Your task to perform on an android device: View the shopping cart on target. Search for "logitech g903" on target, select the first entry, and add it to the cart. Image 0: 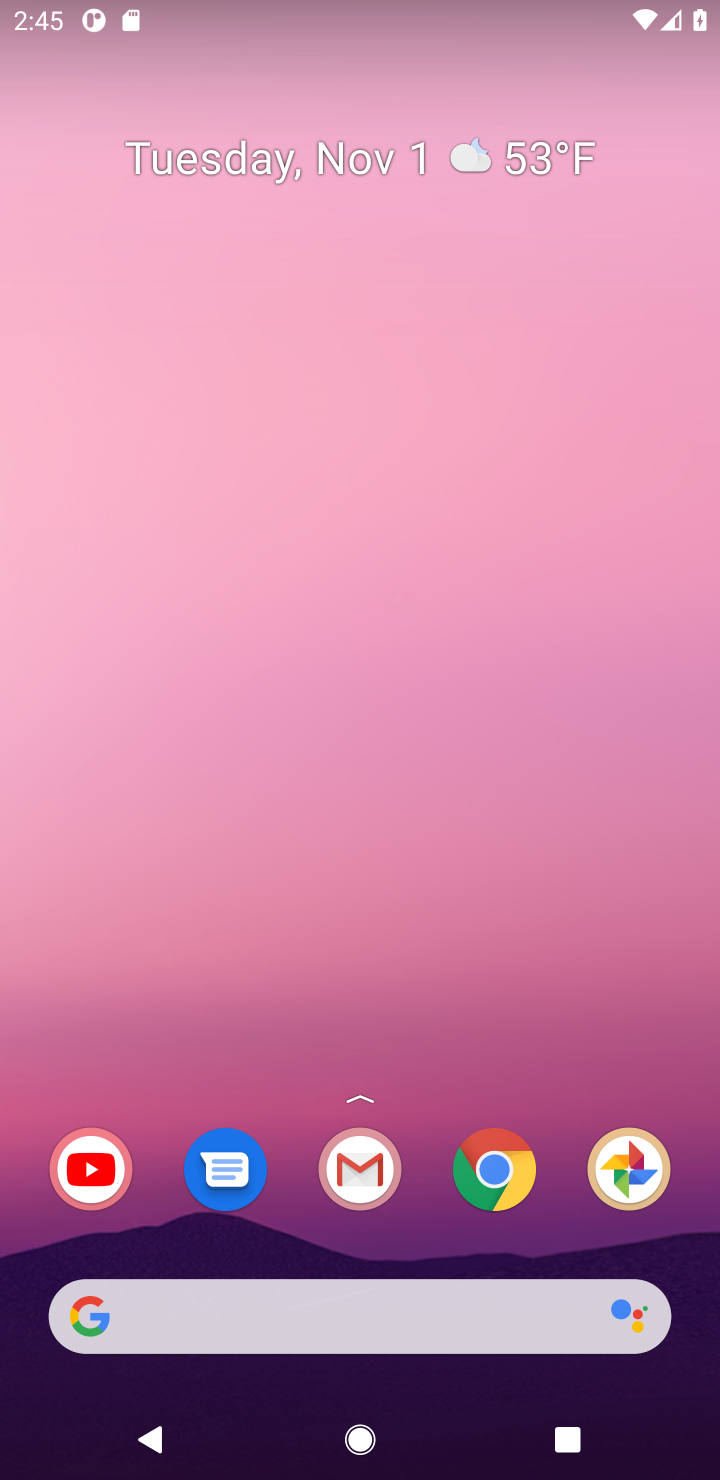
Step 0: click (486, 1168)
Your task to perform on an android device: View the shopping cart on target. Search for "logitech g903" on target, select the first entry, and add it to the cart. Image 1: 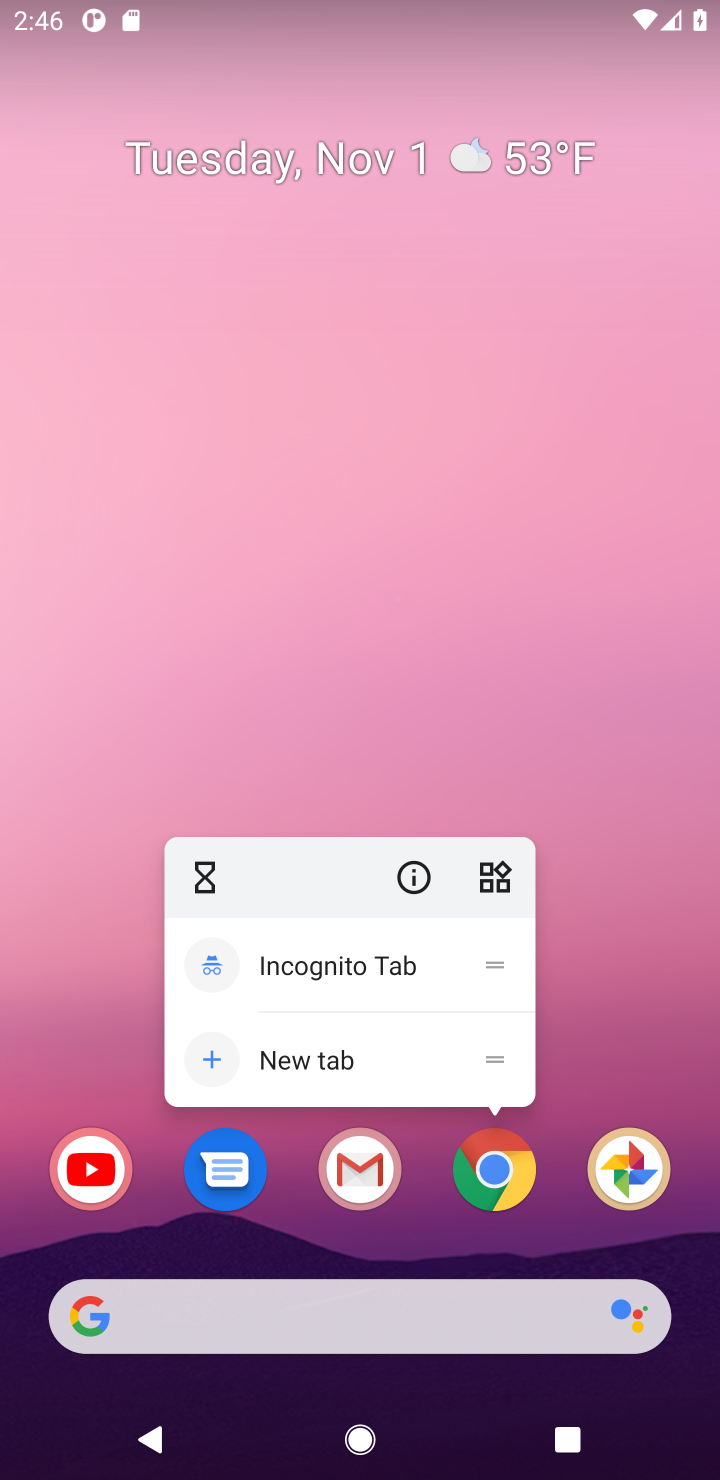
Step 1: click (602, 875)
Your task to perform on an android device: View the shopping cart on target. Search for "logitech g903" on target, select the first entry, and add it to the cart. Image 2: 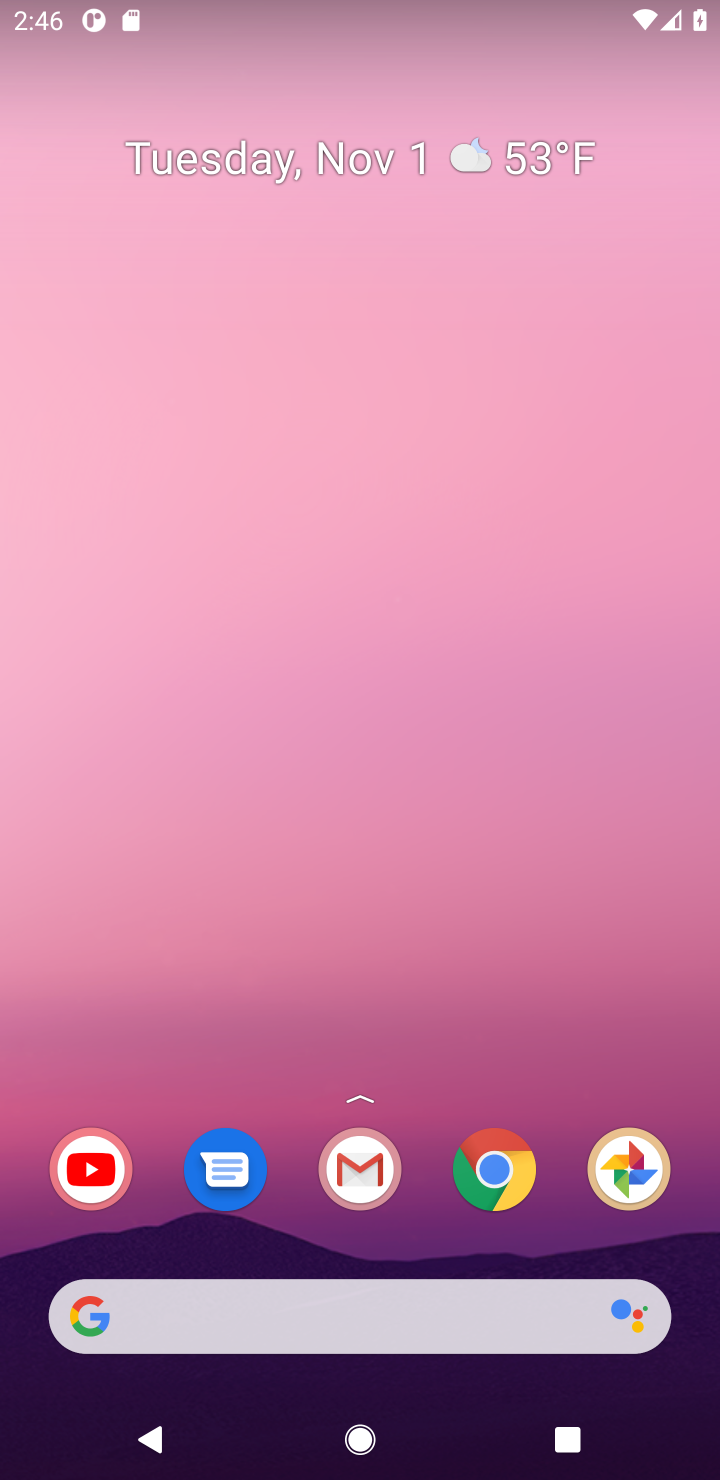
Step 2: drag from (565, 822) to (565, 61)
Your task to perform on an android device: View the shopping cart on target. Search for "logitech g903" on target, select the first entry, and add it to the cart. Image 3: 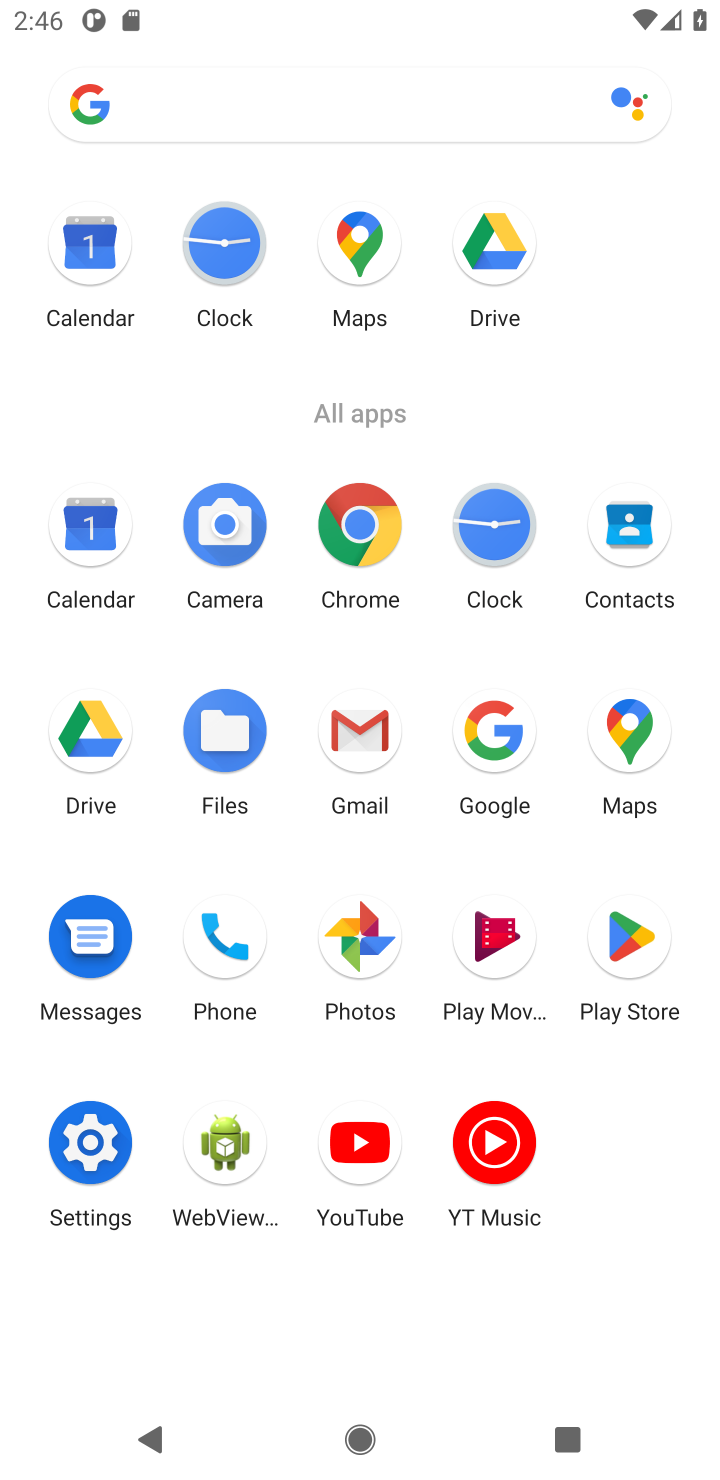
Step 3: click (362, 515)
Your task to perform on an android device: View the shopping cart on target. Search for "logitech g903" on target, select the first entry, and add it to the cart. Image 4: 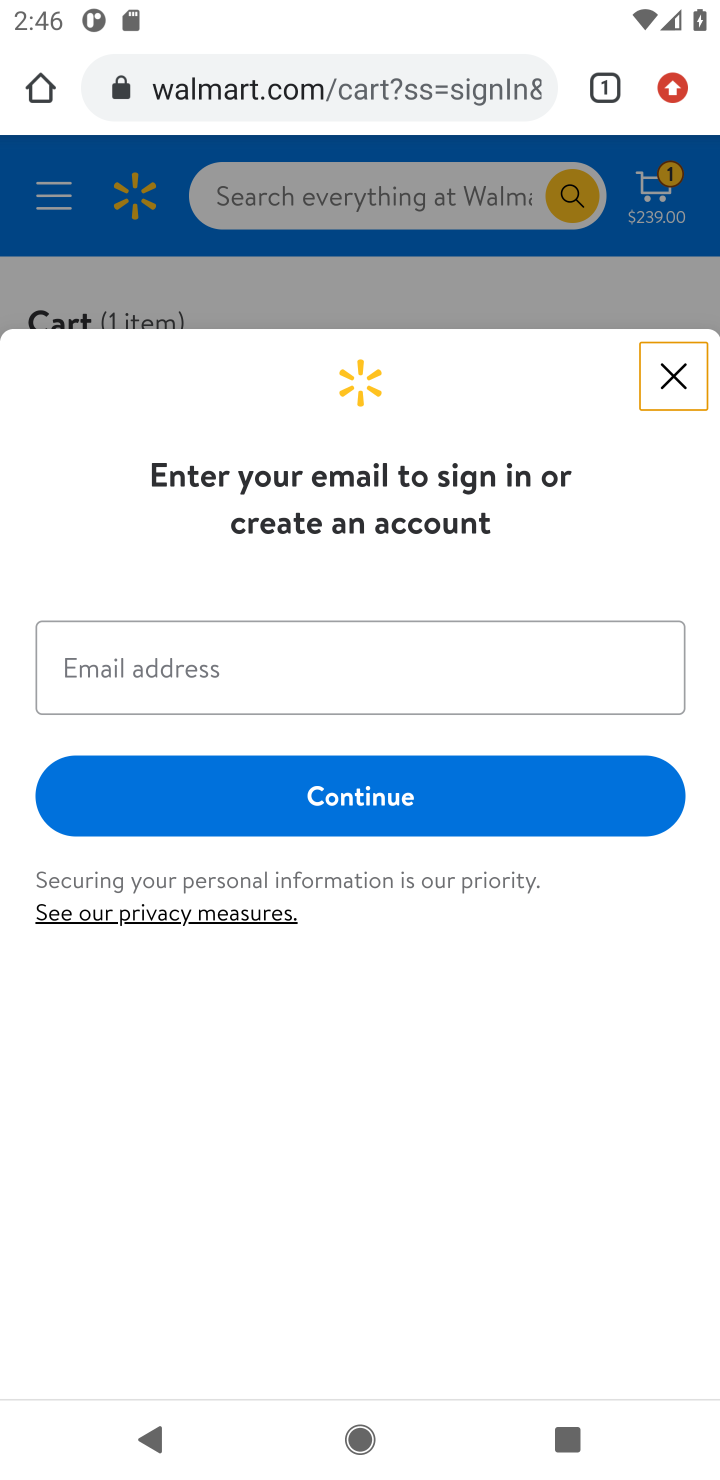
Step 4: click (247, 83)
Your task to perform on an android device: View the shopping cart on target. Search for "logitech g903" on target, select the first entry, and add it to the cart. Image 5: 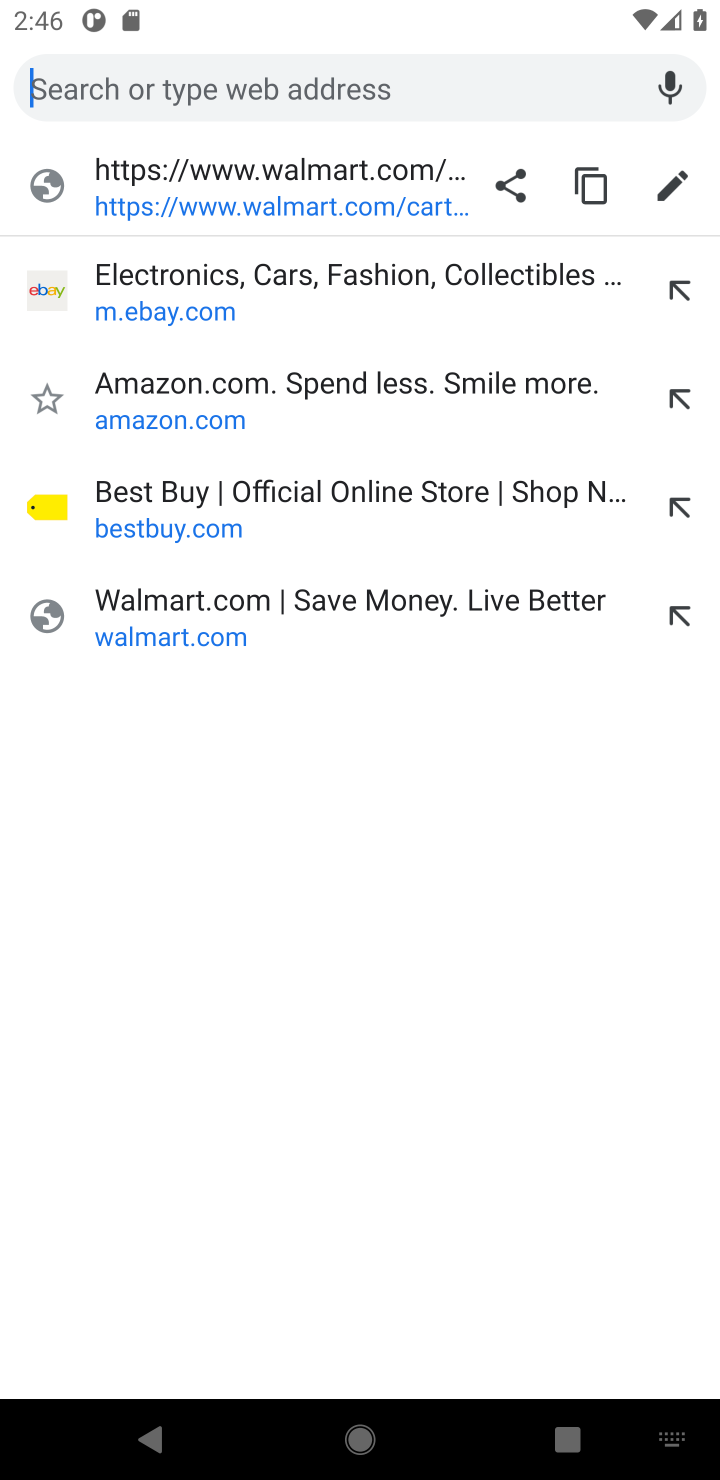
Step 5: type "target"
Your task to perform on an android device: View the shopping cart on target. Search for "logitech g903" on target, select the first entry, and add it to the cart. Image 6: 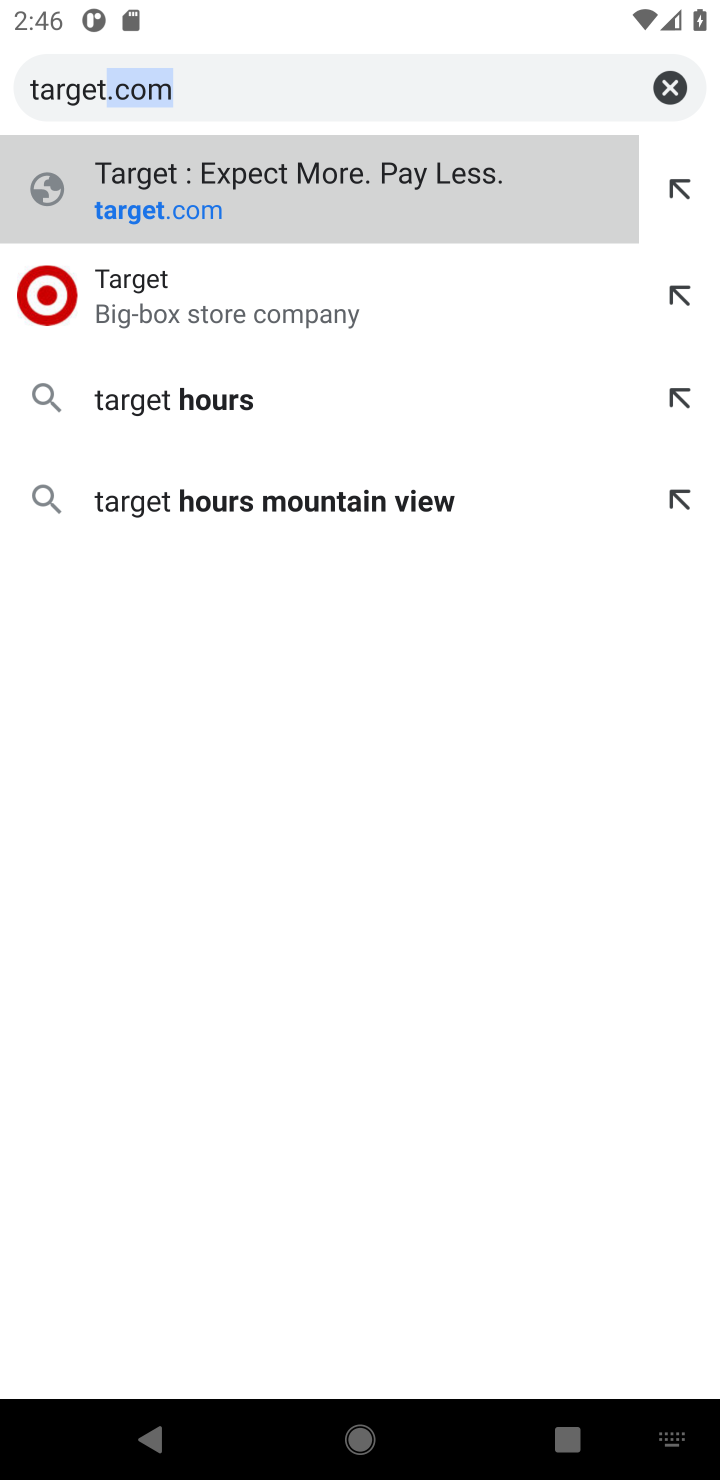
Step 6: click (216, 210)
Your task to perform on an android device: View the shopping cart on target. Search for "logitech g903" on target, select the first entry, and add it to the cart. Image 7: 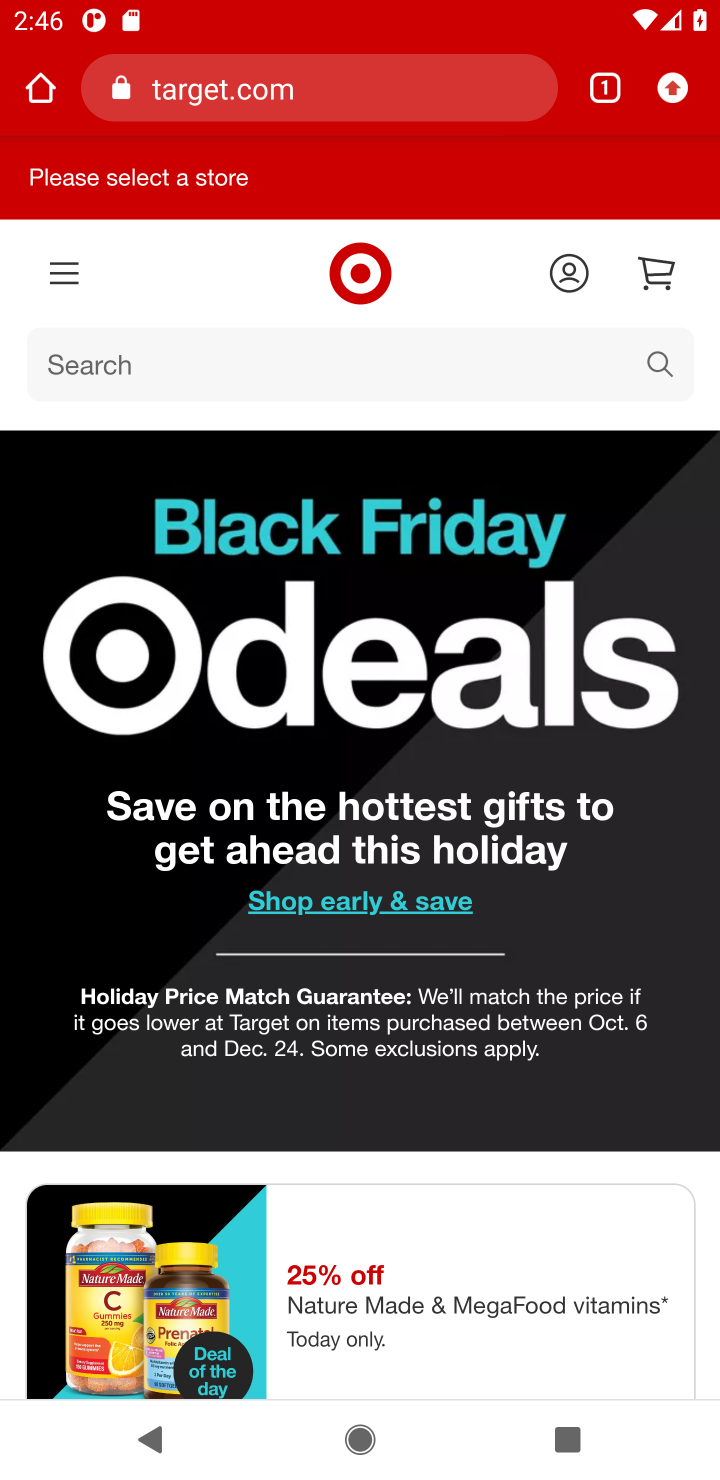
Step 7: click (159, 360)
Your task to perform on an android device: View the shopping cart on target. Search for "logitech g903" on target, select the first entry, and add it to the cart. Image 8: 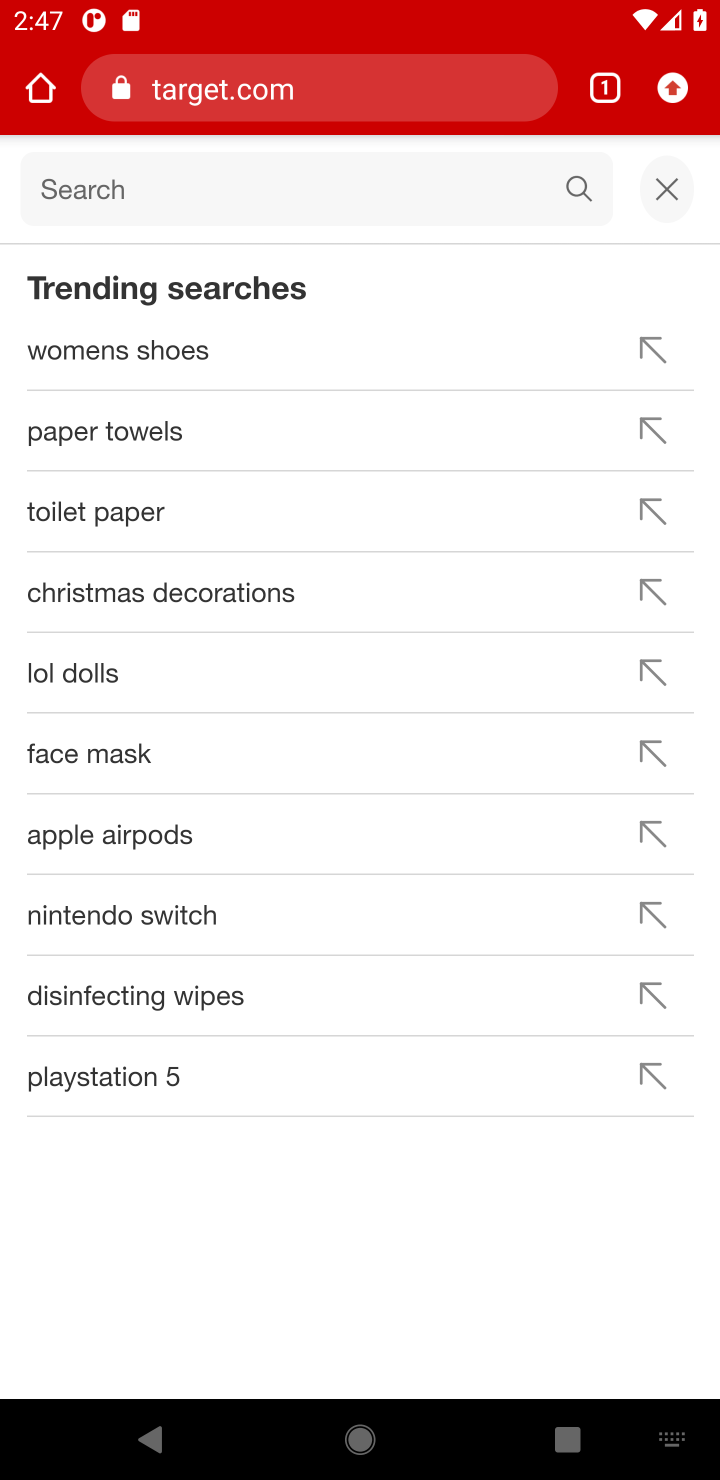
Step 8: type "logitech g903"
Your task to perform on an android device: View the shopping cart on target. Search for "logitech g903" on target, select the first entry, and add it to the cart. Image 9: 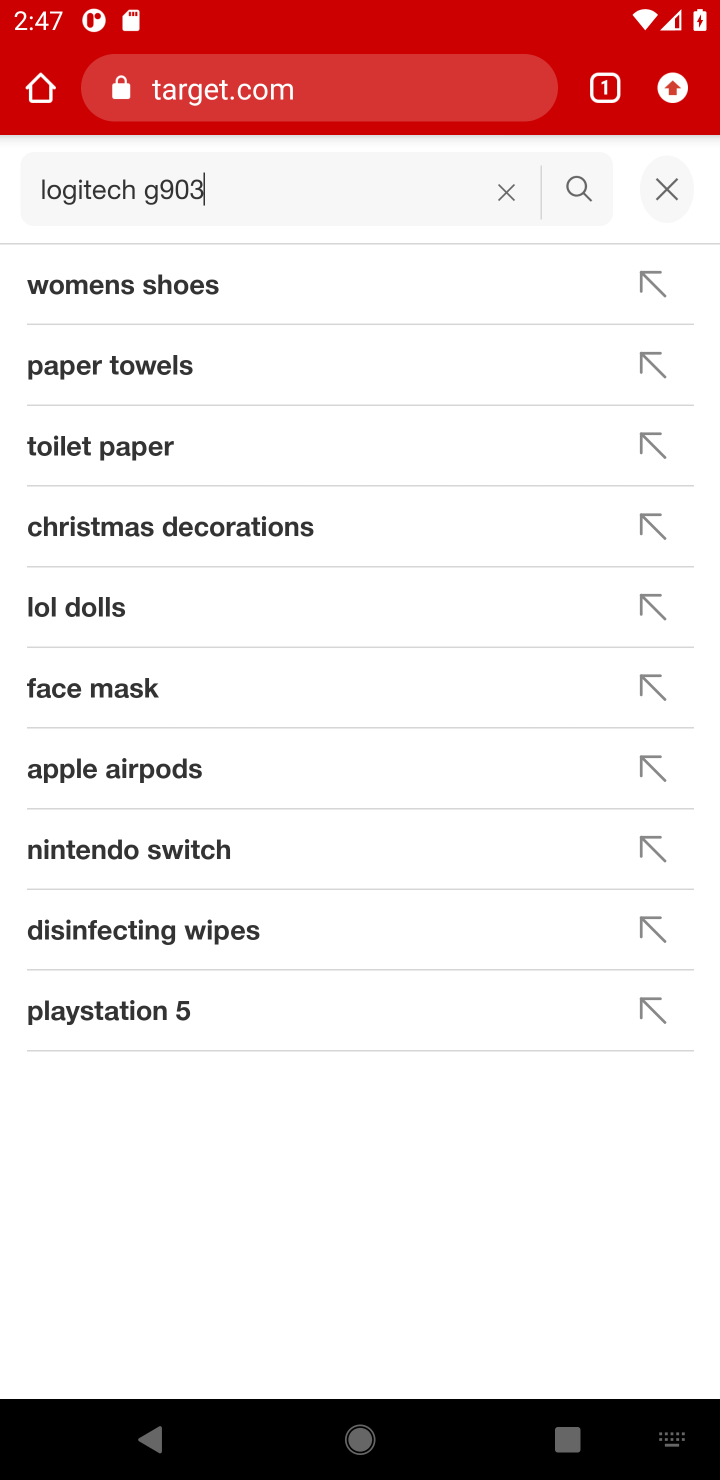
Step 9: type ""
Your task to perform on an android device: View the shopping cart on target. Search for "logitech g903" on target, select the first entry, and add it to the cart. Image 10: 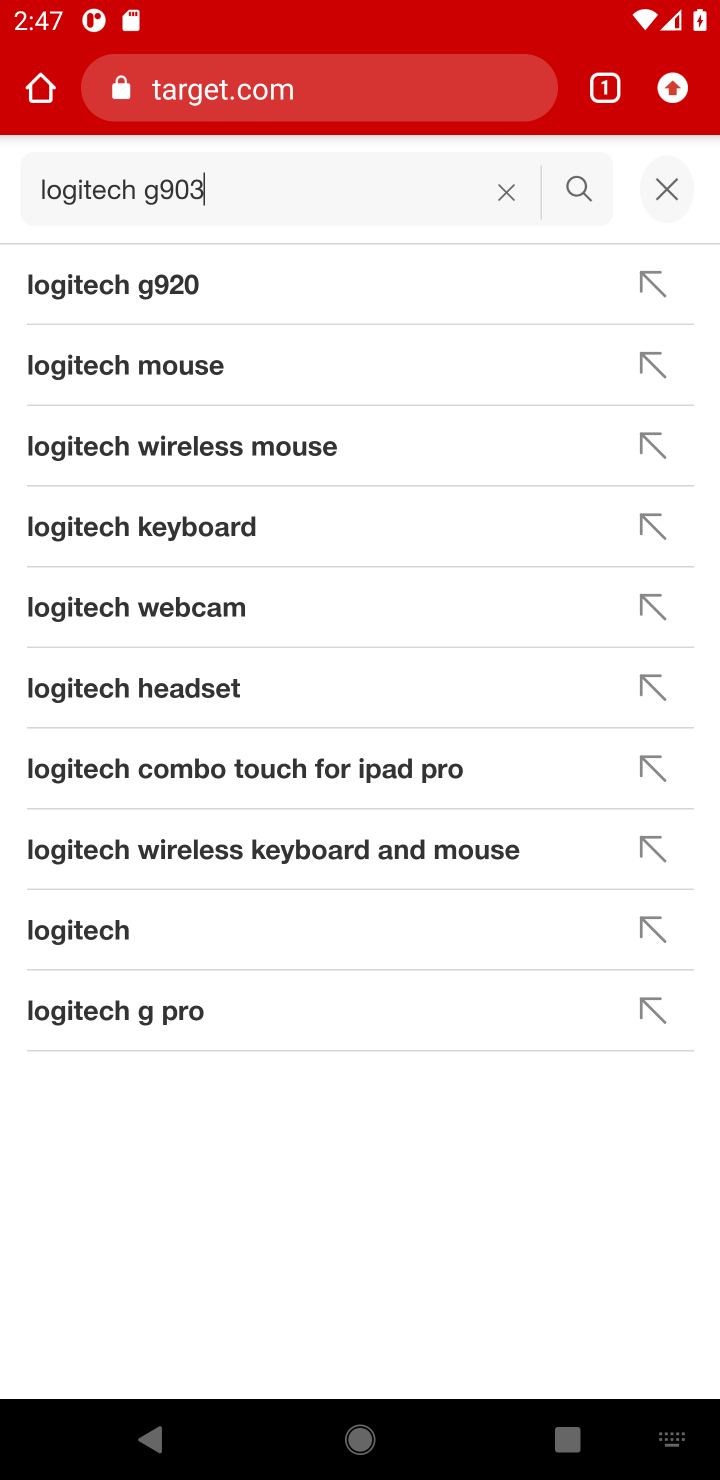
Step 10: click (173, 278)
Your task to perform on an android device: View the shopping cart on target. Search for "logitech g903" on target, select the first entry, and add it to the cart. Image 11: 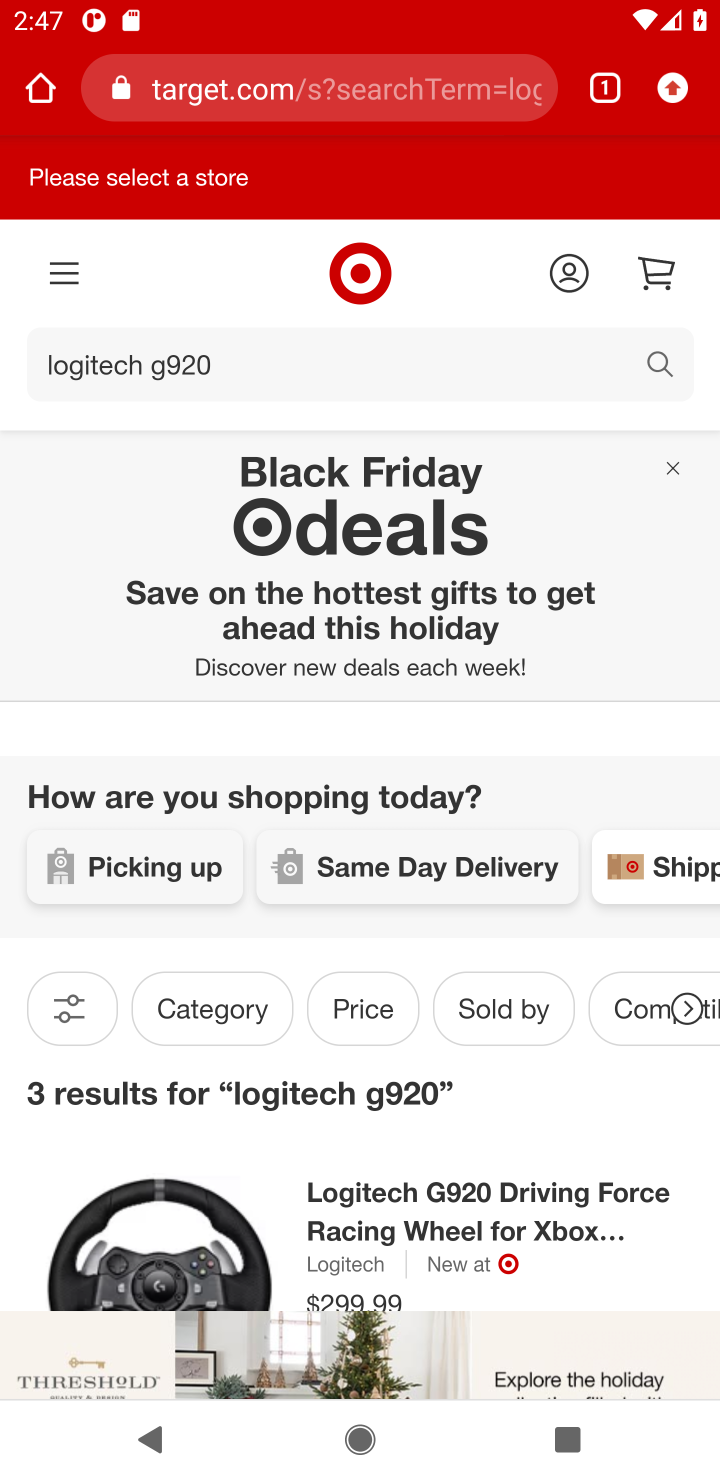
Step 11: drag from (426, 1137) to (570, 559)
Your task to perform on an android device: View the shopping cart on target. Search for "logitech g903" on target, select the first entry, and add it to the cart. Image 12: 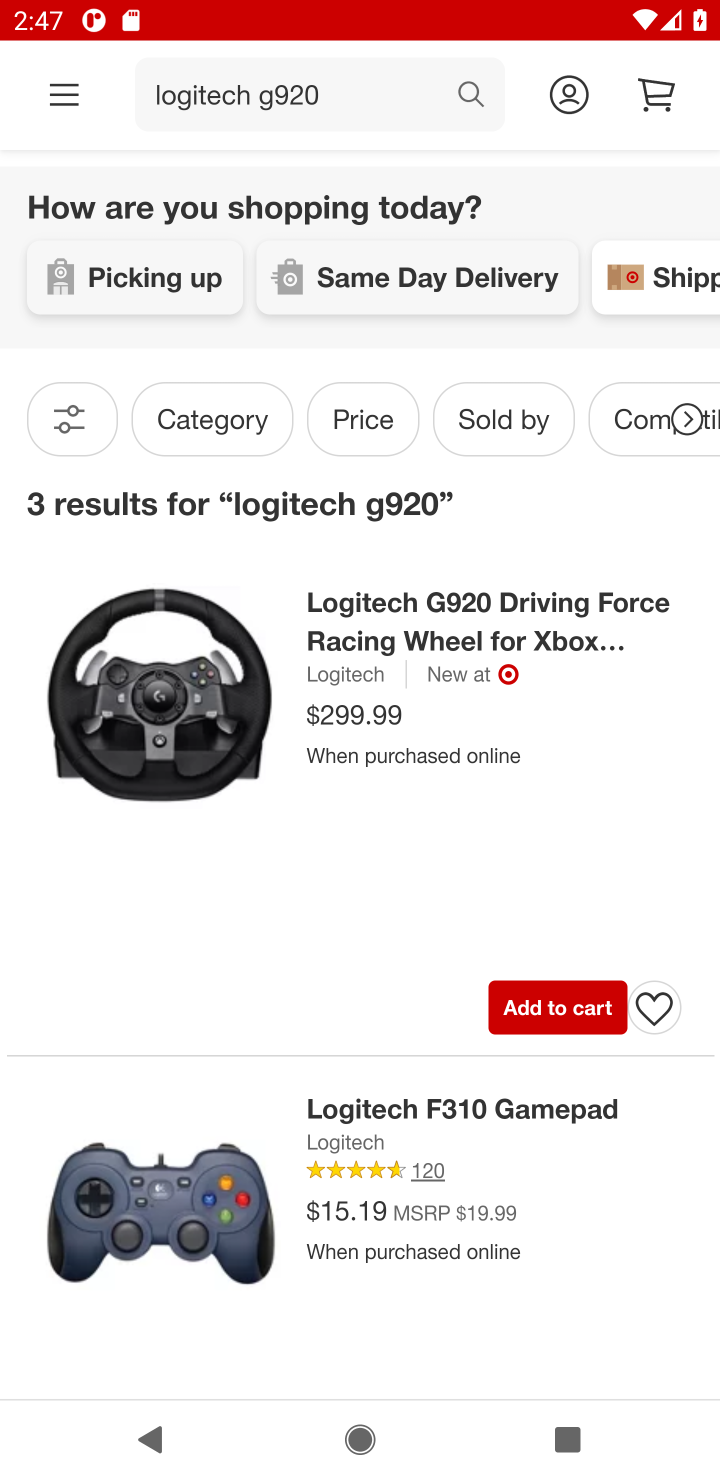
Step 12: click (339, 603)
Your task to perform on an android device: View the shopping cart on target. Search for "logitech g903" on target, select the first entry, and add it to the cart. Image 13: 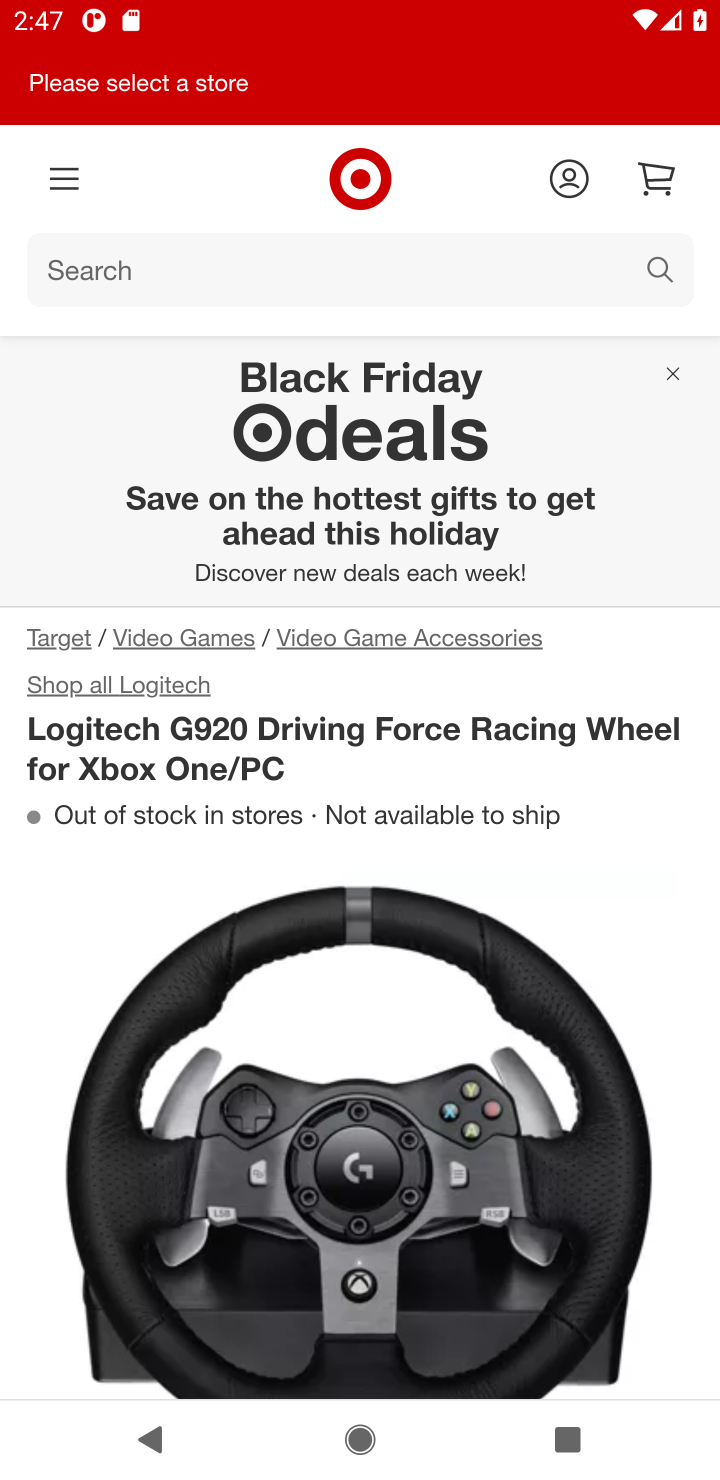
Step 13: drag from (357, 1043) to (497, 458)
Your task to perform on an android device: View the shopping cart on target. Search for "logitech g903" on target, select the first entry, and add it to the cart. Image 14: 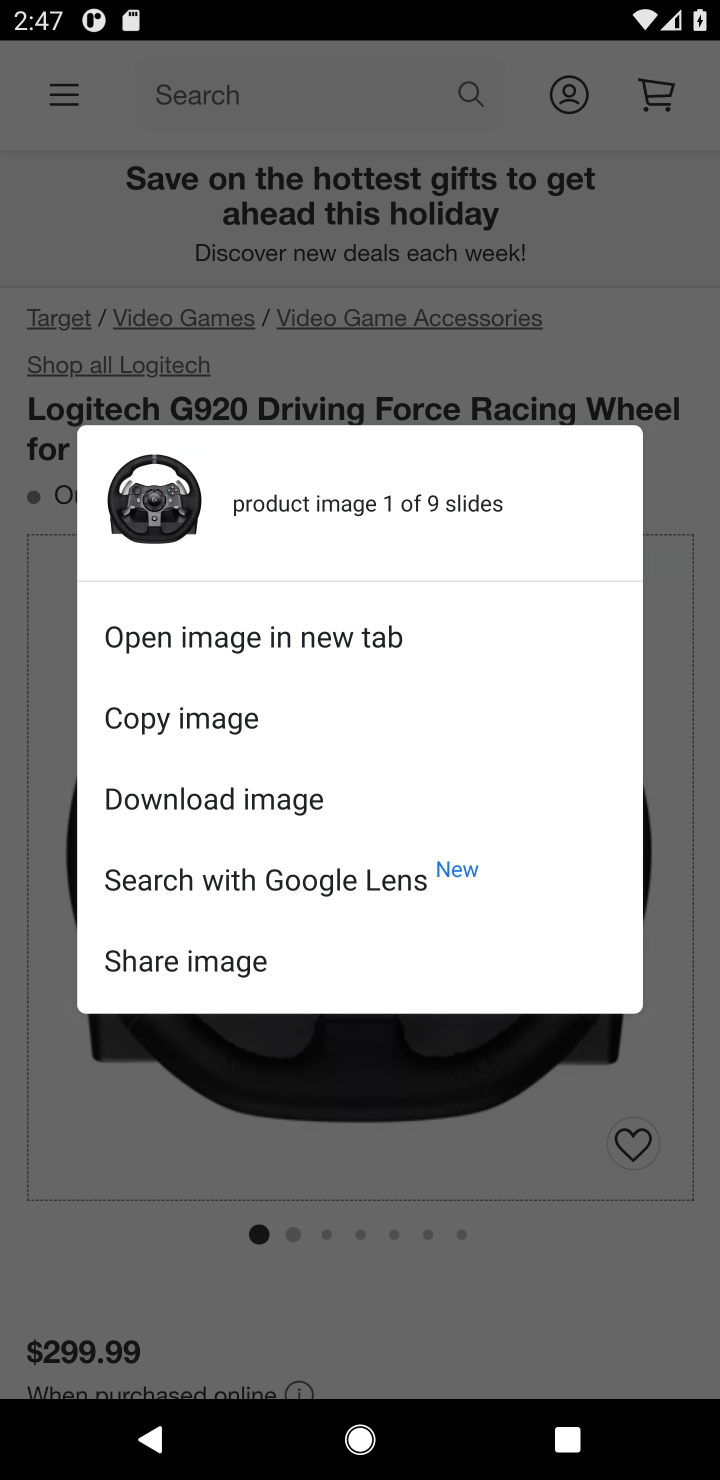
Step 14: click (52, 1230)
Your task to perform on an android device: View the shopping cart on target. Search for "logitech g903" on target, select the first entry, and add it to the cart. Image 15: 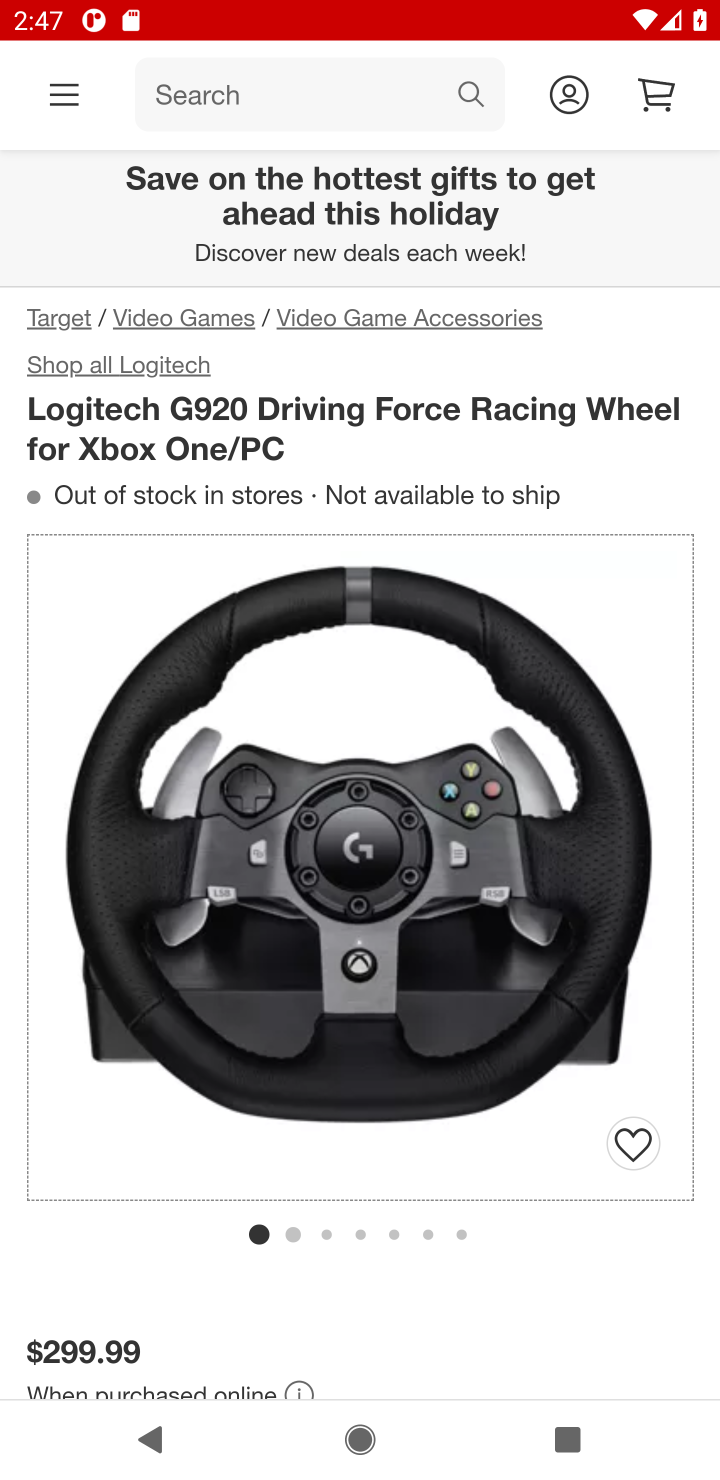
Step 15: drag from (458, 1299) to (526, 450)
Your task to perform on an android device: View the shopping cart on target. Search for "logitech g903" on target, select the first entry, and add it to the cart. Image 16: 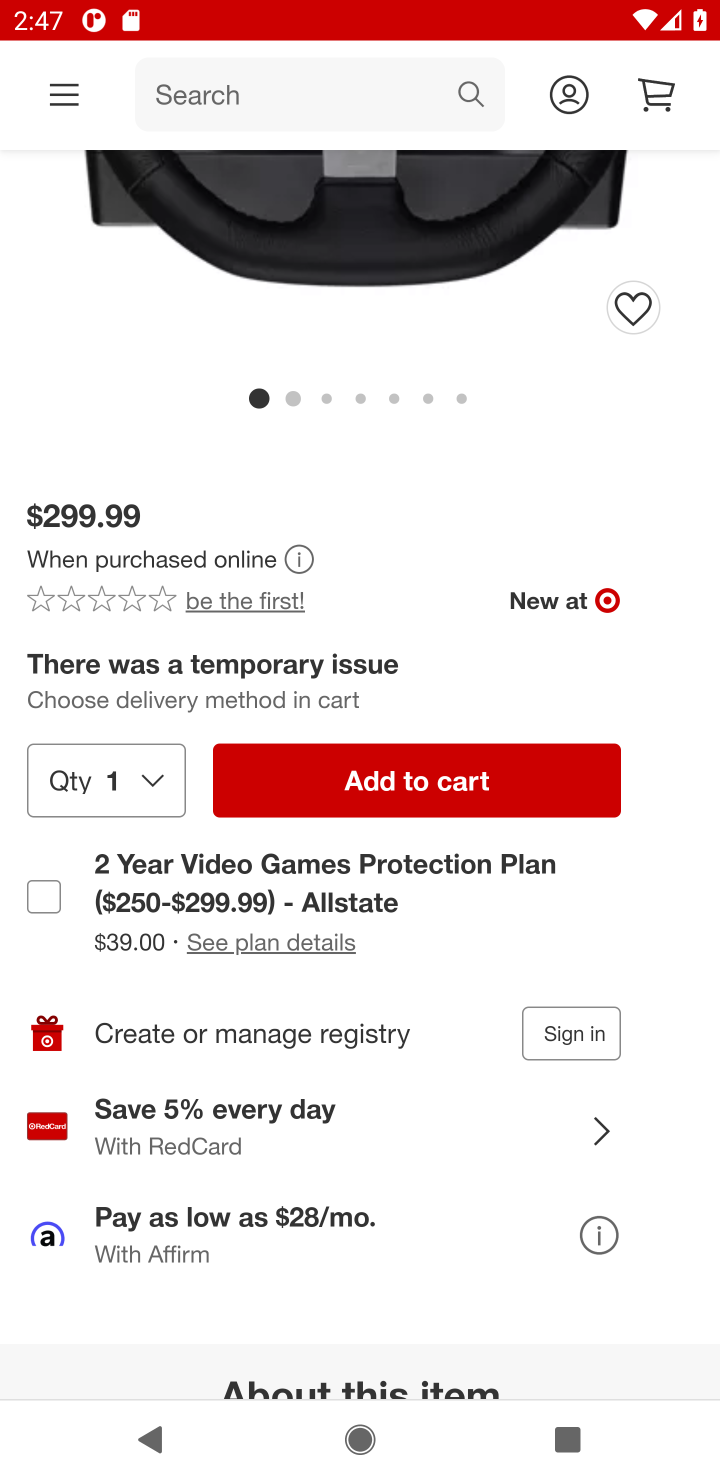
Step 16: click (409, 776)
Your task to perform on an android device: View the shopping cart on target. Search for "logitech g903" on target, select the first entry, and add it to the cart. Image 17: 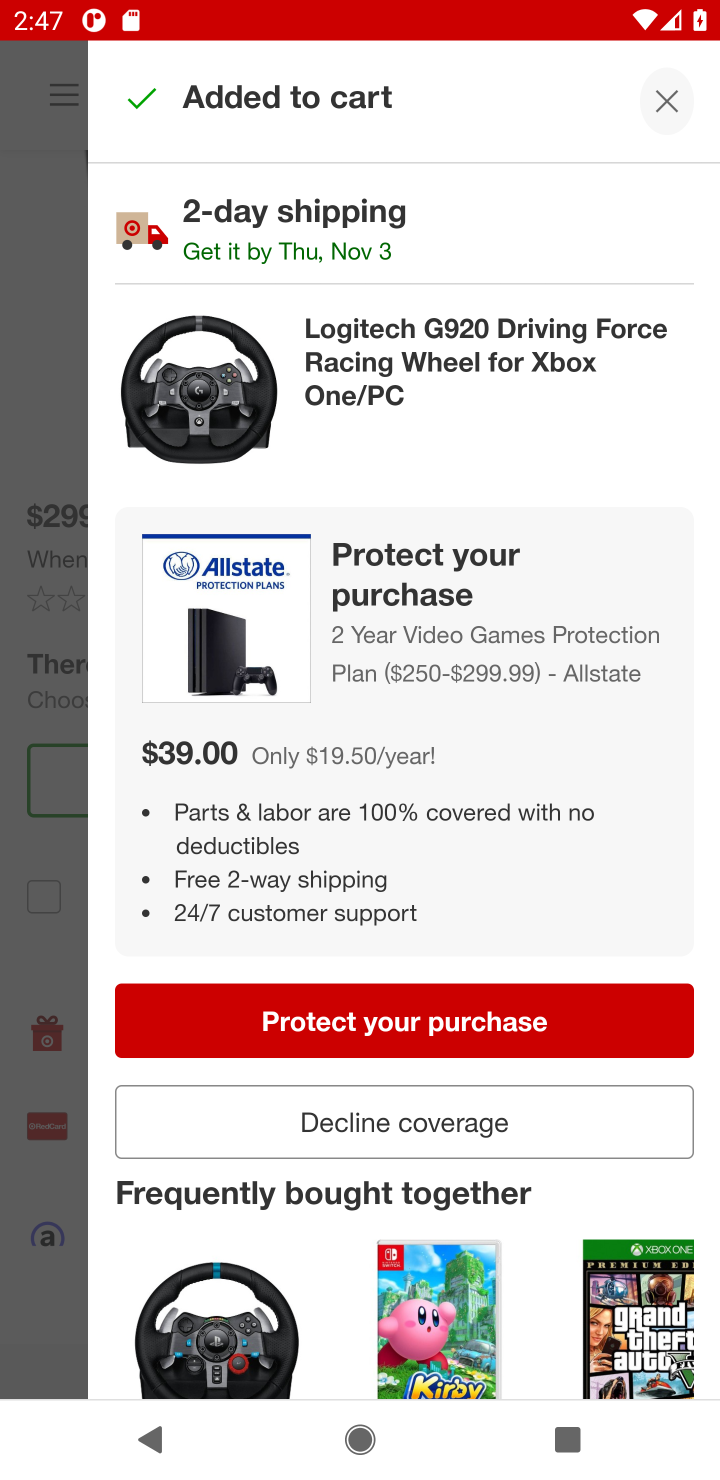
Step 17: click (666, 95)
Your task to perform on an android device: View the shopping cart on target. Search for "logitech g903" on target, select the first entry, and add it to the cart. Image 18: 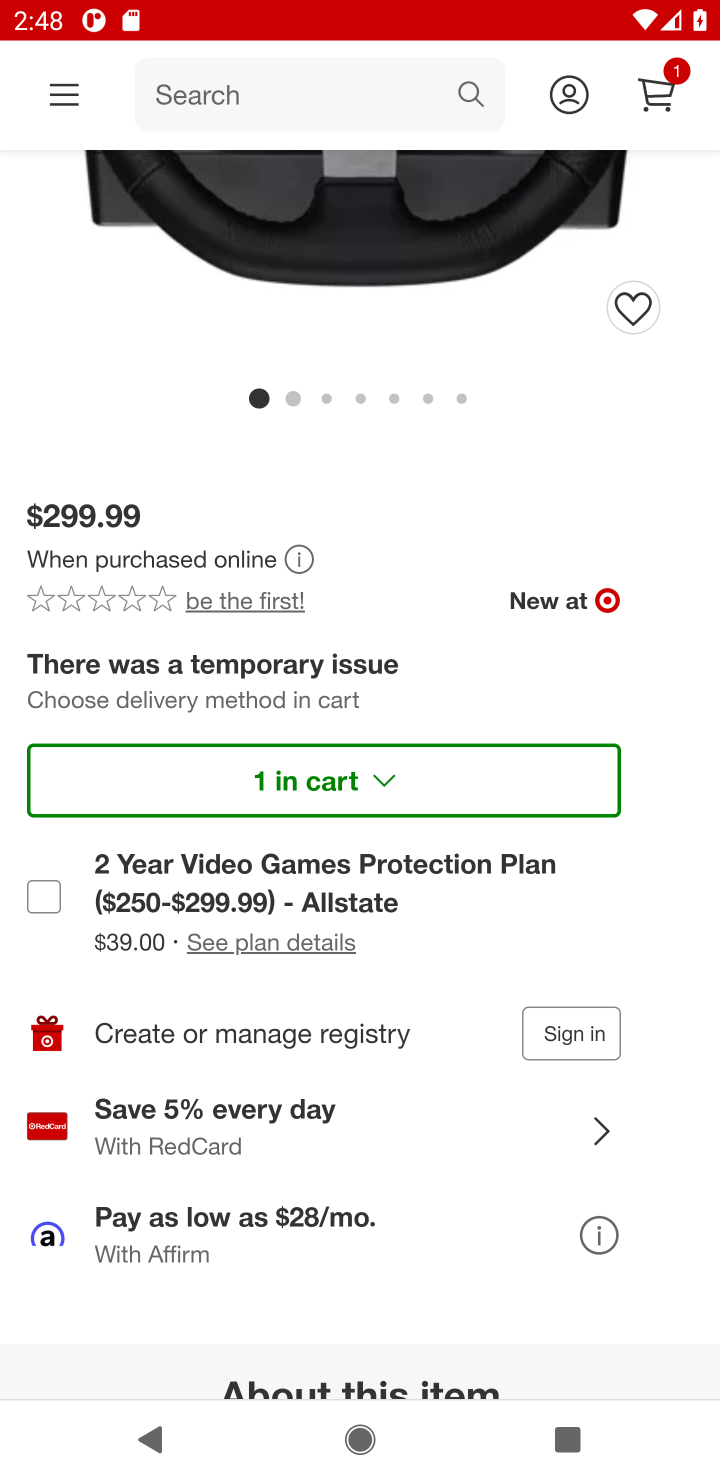
Step 18: click (673, 75)
Your task to perform on an android device: View the shopping cart on target. Search for "logitech g903" on target, select the first entry, and add it to the cart. Image 19: 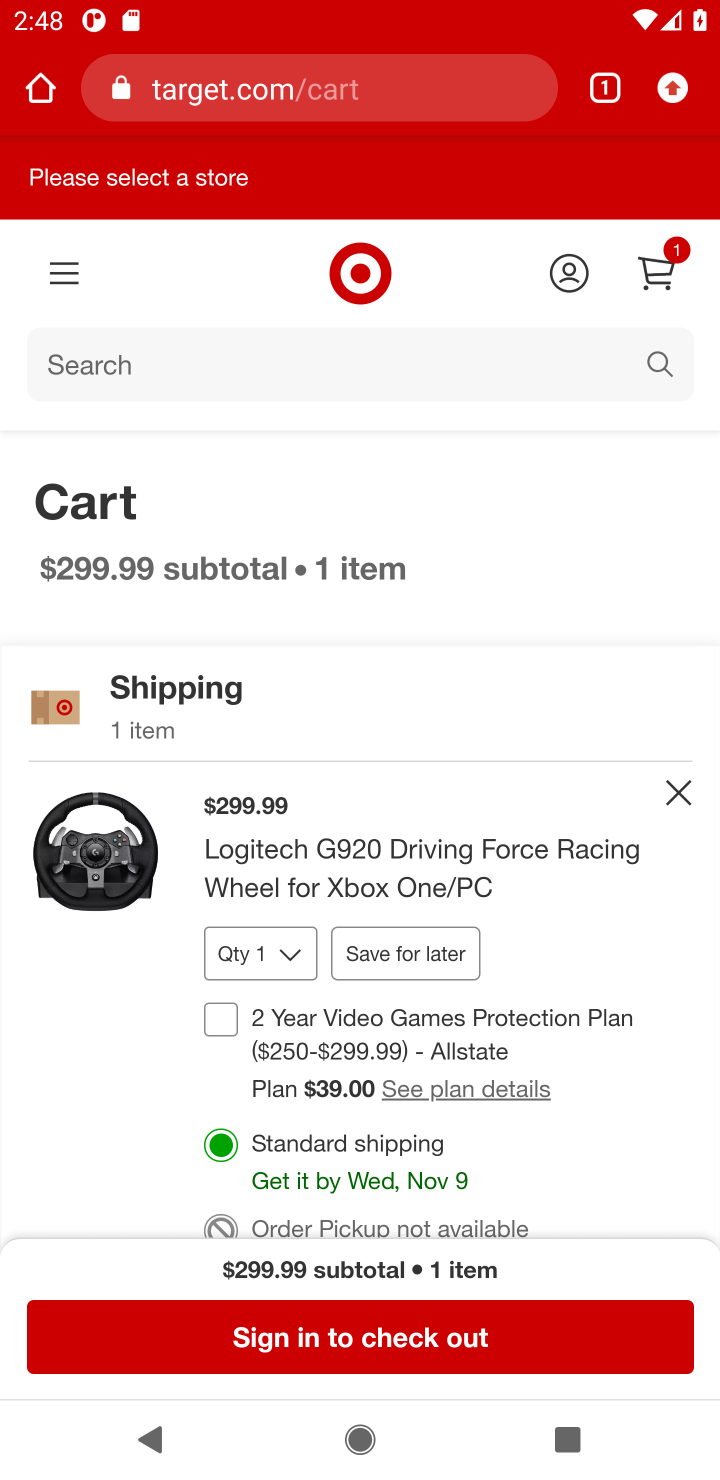
Step 19: drag from (495, 1140) to (511, 516)
Your task to perform on an android device: View the shopping cart on target. Search for "logitech g903" on target, select the first entry, and add it to the cart. Image 20: 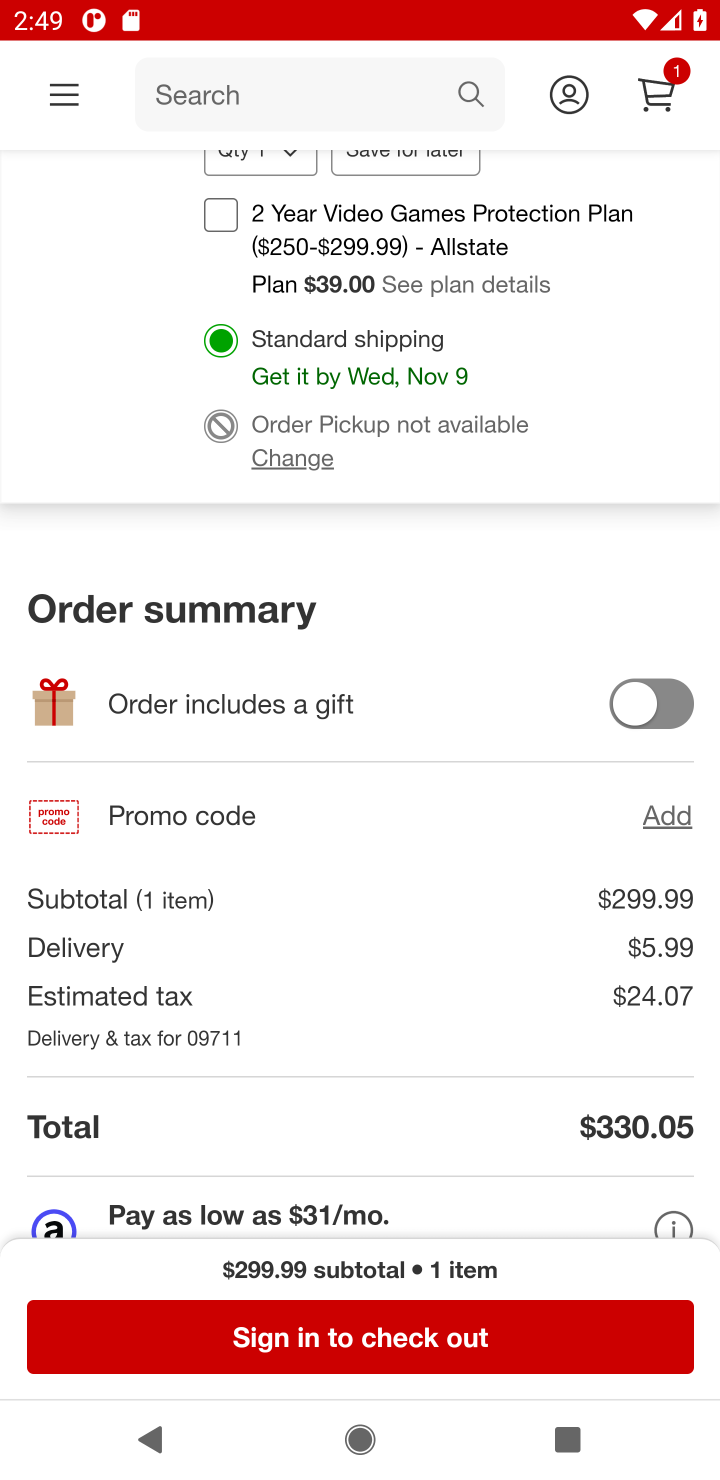
Step 20: click (362, 1334)
Your task to perform on an android device: View the shopping cart on target. Search for "logitech g903" on target, select the first entry, and add it to the cart. Image 21: 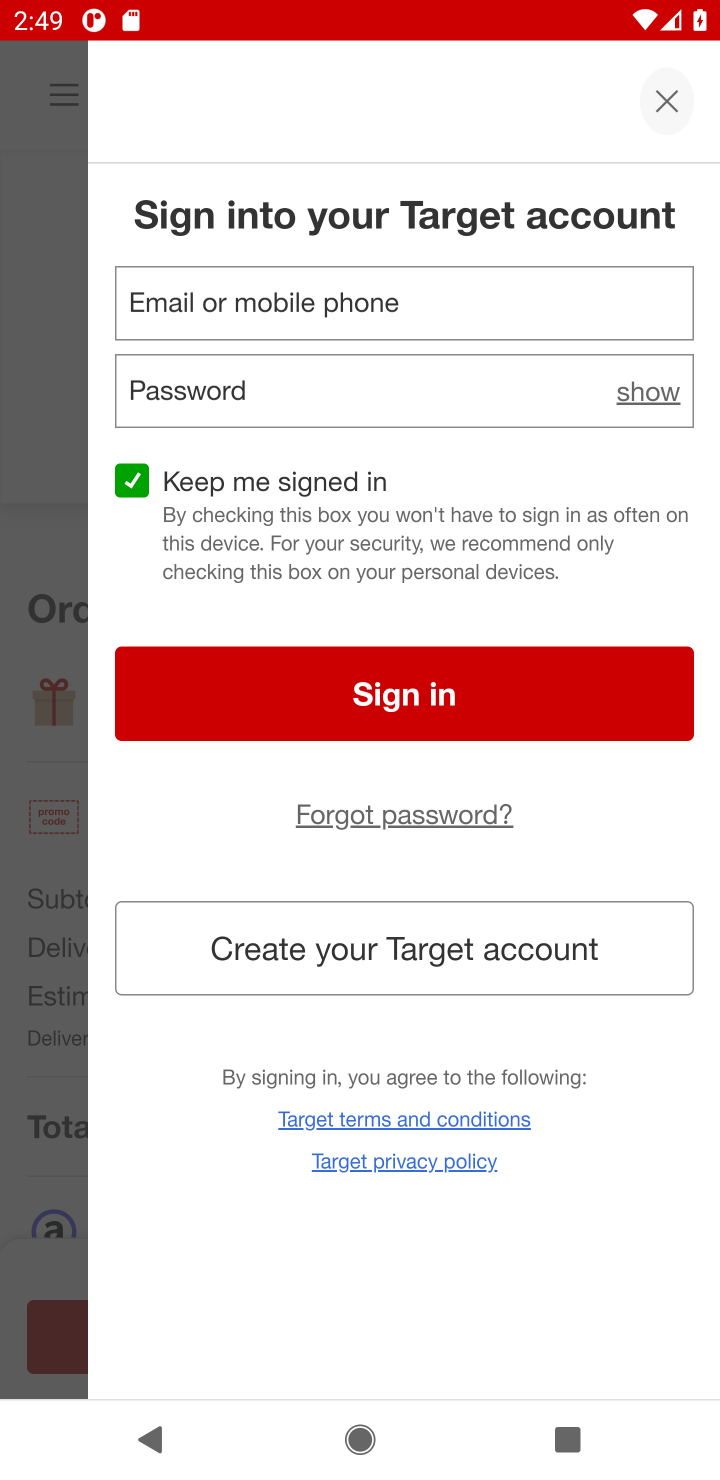
Step 21: click (668, 96)
Your task to perform on an android device: View the shopping cart on target. Search for "logitech g903" on target, select the first entry, and add it to the cart. Image 22: 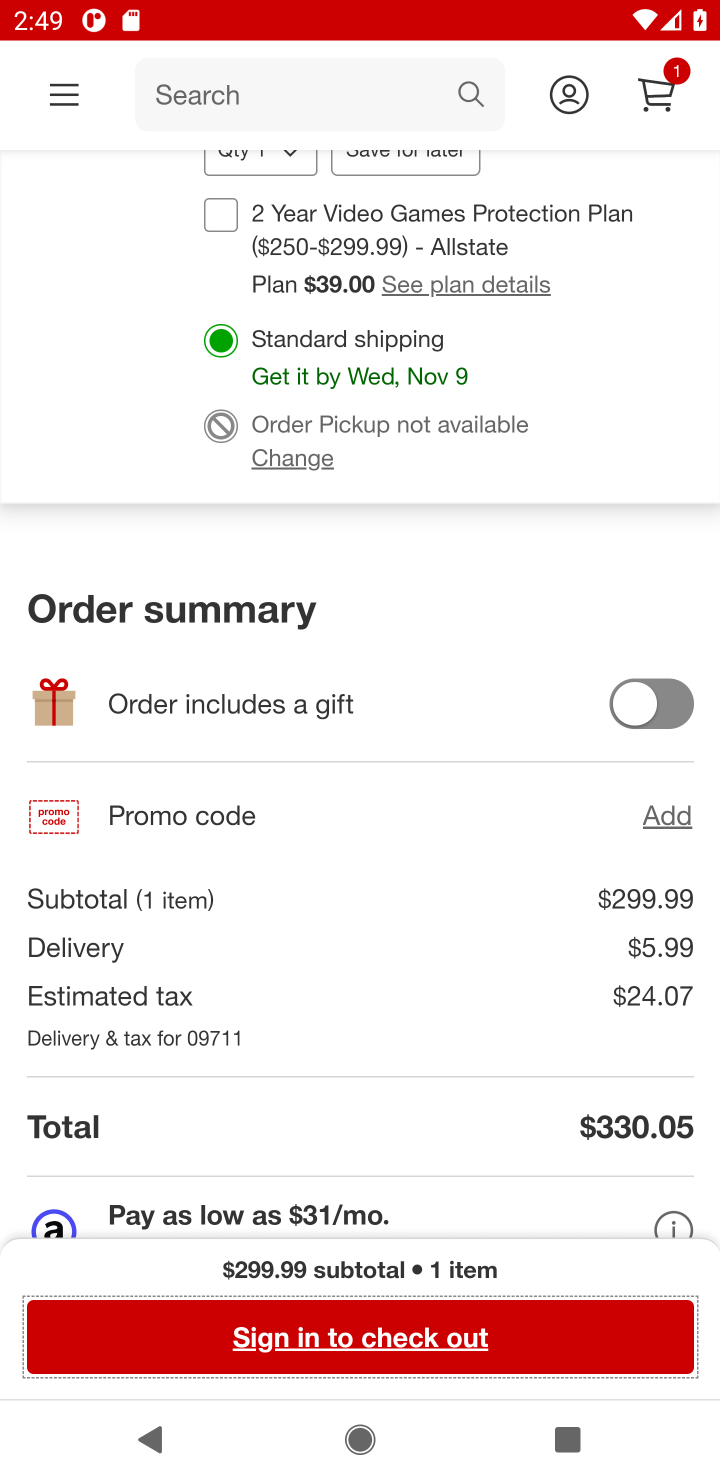
Step 22: task complete